Your task to perform on an android device: visit the assistant section in the google photos Image 0: 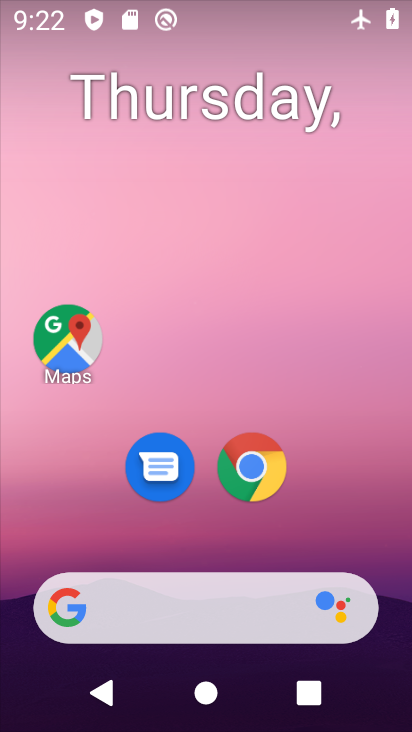
Step 0: drag from (358, 506) to (292, 28)
Your task to perform on an android device: visit the assistant section in the google photos Image 1: 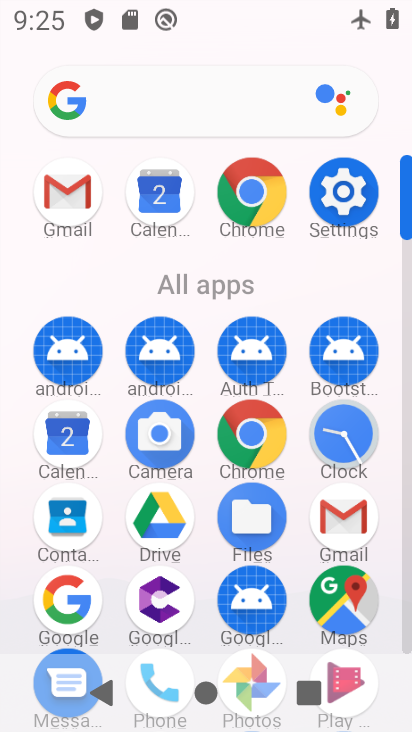
Step 1: drag from (393, 611) to (370, 180)
Your task to perform on an android device: visit the assistant section in the google photos Image 2: 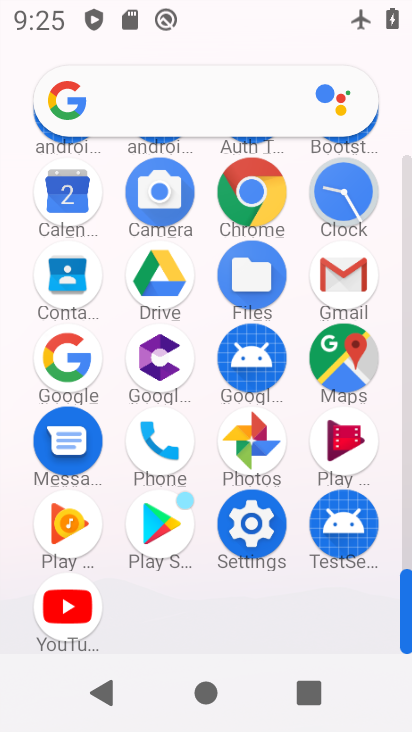
Step 2: click (262, 452)
Your task to perform on an android device: visit the assistant section in the google photos Image 3: 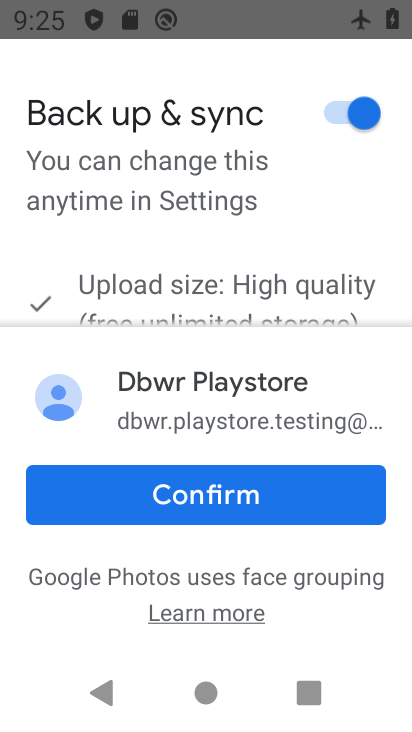
Step 3: click (215, 478)
Your task to perform on an android device: visit the assistant section in the google photos Image 4: 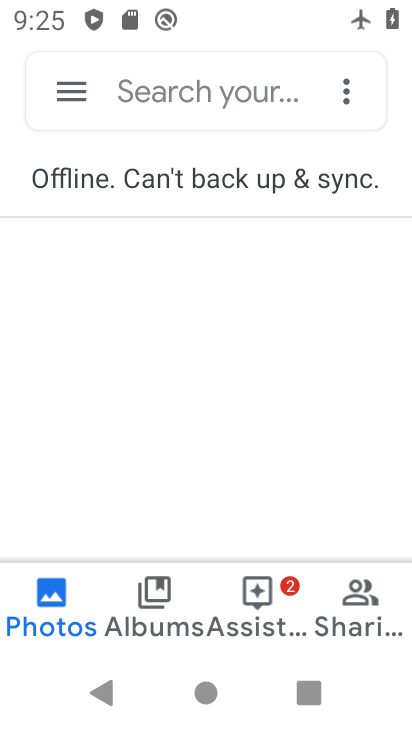
Step 4: click (244, 595)
Your task to perform on an android device: visit the assistant section in the google photos Image 5: 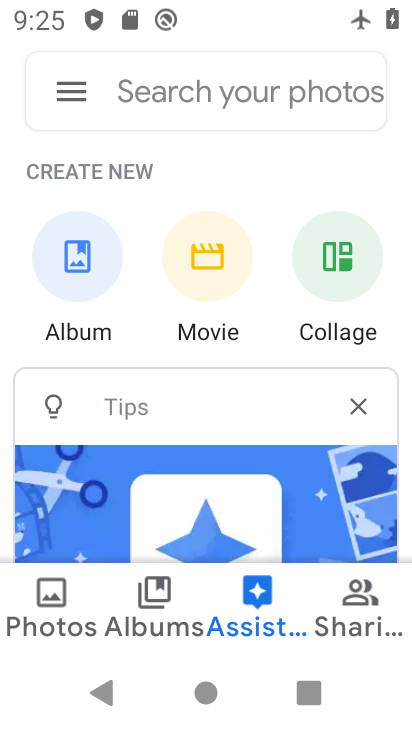
Step 5: task complete